Your task to perform on an android device: open the mobile data screen to see how much data has been used Image 0: 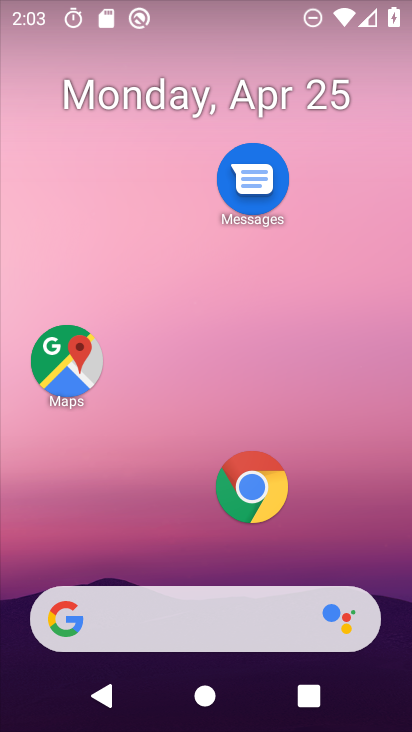
Step 0: drag from (179, 348) to (194, 75)
Your task to perform on an android device: open the mobile data screen to see how much data has been used Image 1: 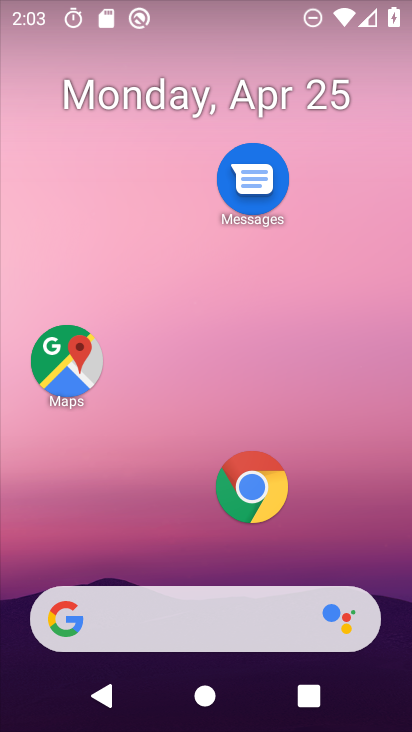
Step 1: drag from (241, 421) to (257, 5)
Your task to perform on an android device: open the mobile data screen to see how much data has been used Image 2: 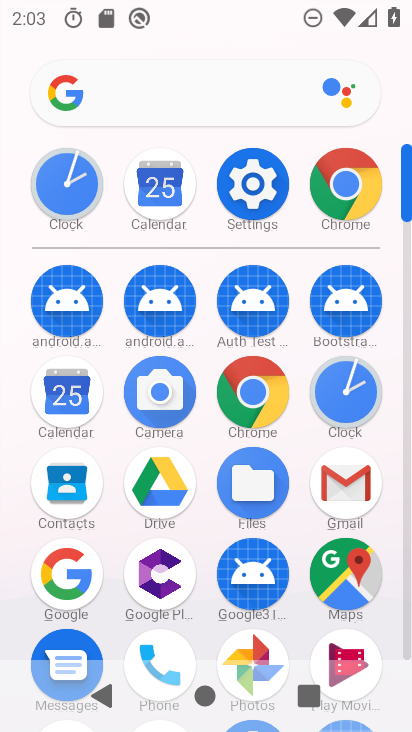
Step 2: drag from (277, 598) to (280, 209)
Your task to perform on an android device: open the mobile data screen to see how much data has been used Image 3: 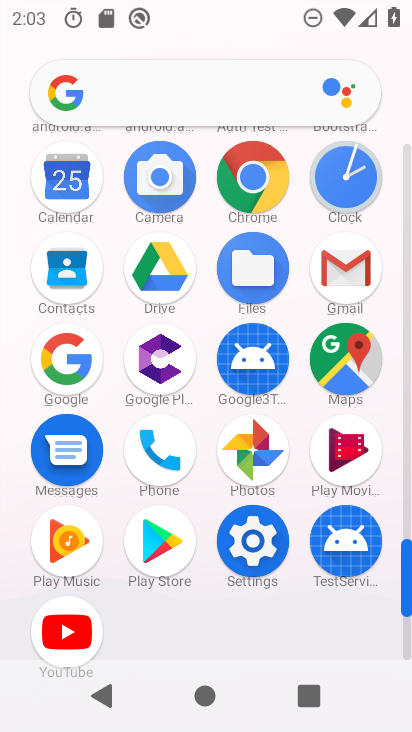
Step 3: drag from (305, 286) to (309, 175)
Your task to perform on an android device: open the mobile data screen to see how much data has been used Image 4: 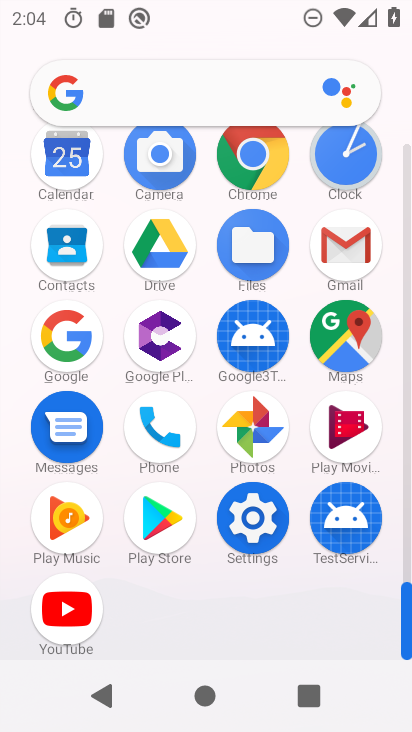
Step 4: click (253, 519)
Your task to perform on an android device: open the mobile data screen to see how much data has been used Image 5: 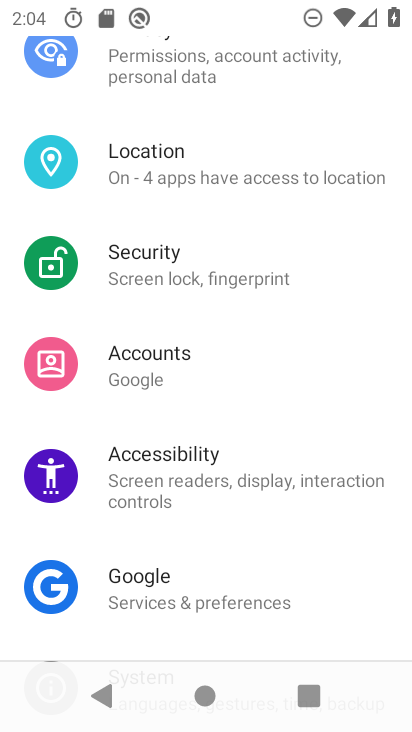
Step 5: drag from (244, 634) to (263, 710)
Your task to perform on an android device: open the mobile data screen to see how much data has been used Image 6: 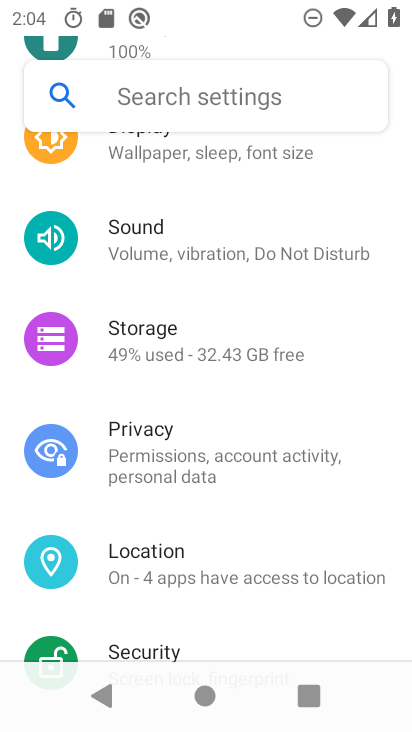
Step 6: drag from (232, 198) to (236, 655)
Your task to perform on an android device: open the mobile data screen to see how much data has been used Image 7: 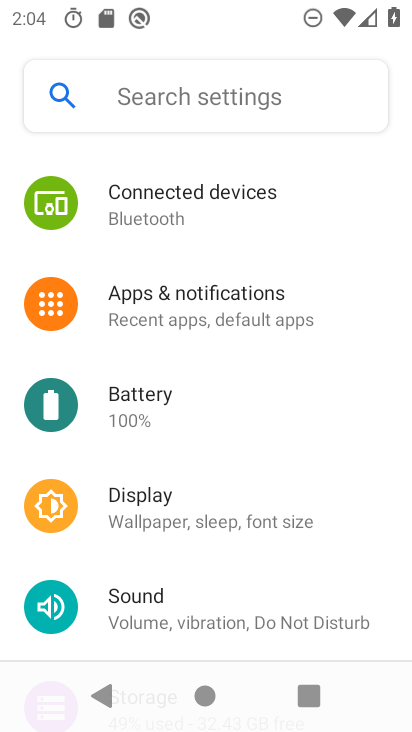
Step 7: drag from (228, 290) to (231, 710)
Your task to perform on an android device: open the mobile data screen to see how much data has been used Image 8: 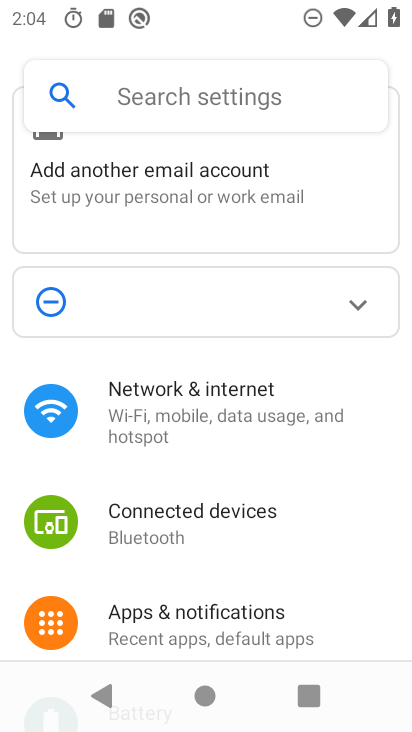
Step 8: click (210, 406)
Your task to perform on an android device: open the mobile data screen to see how much data has been used Image 9: 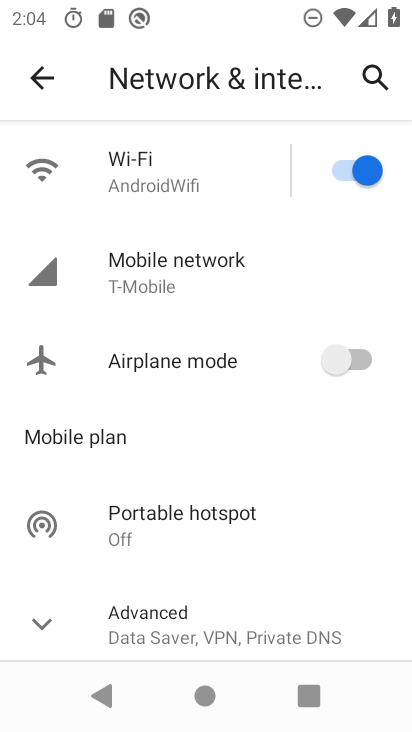
Step 9: click (222, 275)
Your task to perform on an android device: open the mobile data screen to see how much data has been used Image 10: 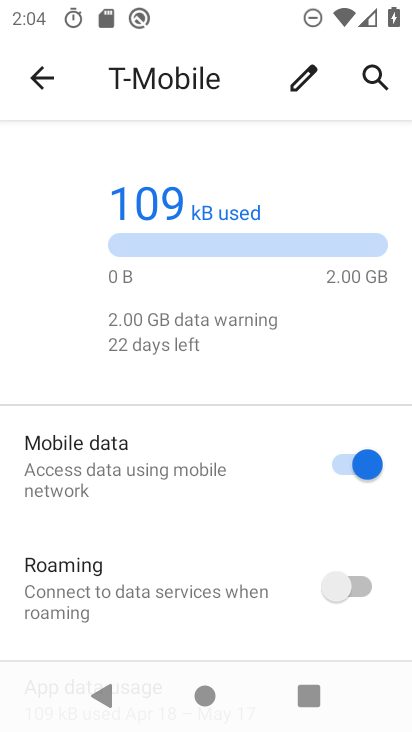
Step 10: task complete